Your task to perform on an android device: Go to Google maps Image 0: 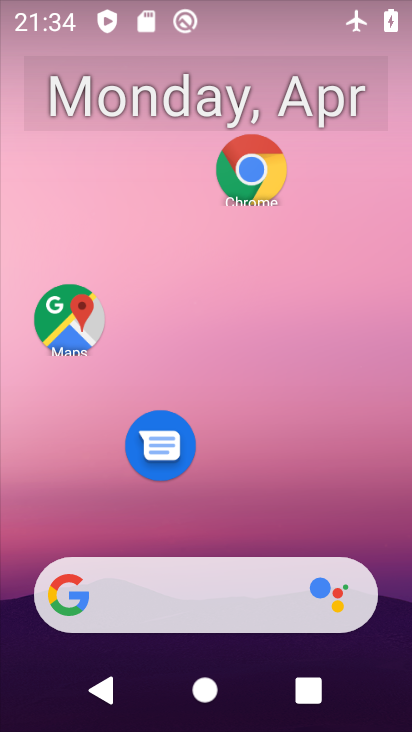
Step 0: click (86, 310)
Your task to perform on an android device: Go to Google maps Image 1: 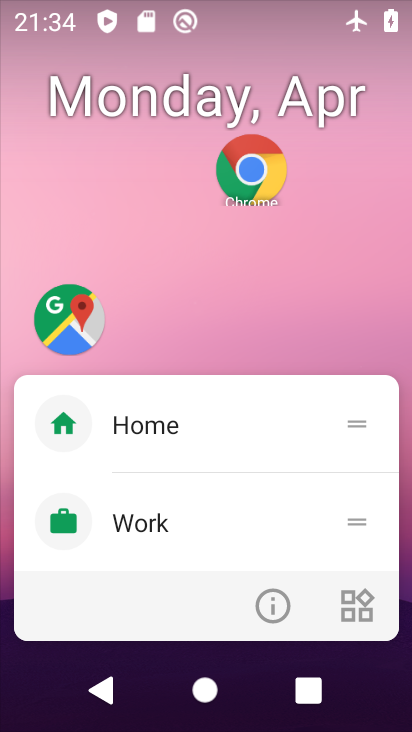
Step 1: click (86, 310)
Your task to perform on an android device: Go to Google maps Image 2: 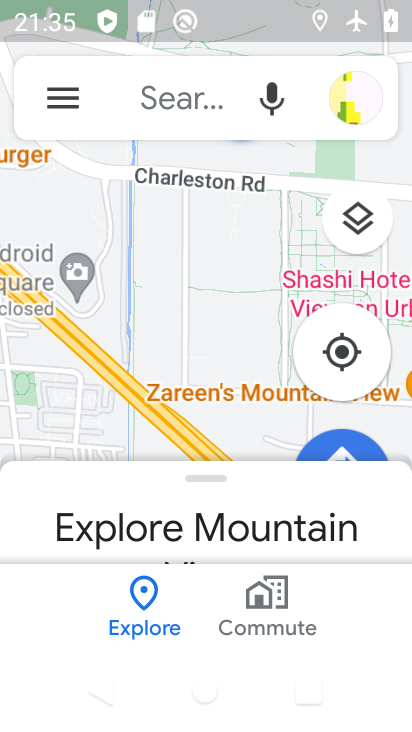
Step 2: task complete